Your task to perform on an android device: open app "Roku - Official Remote Control" (install if not already installed) Image 0: 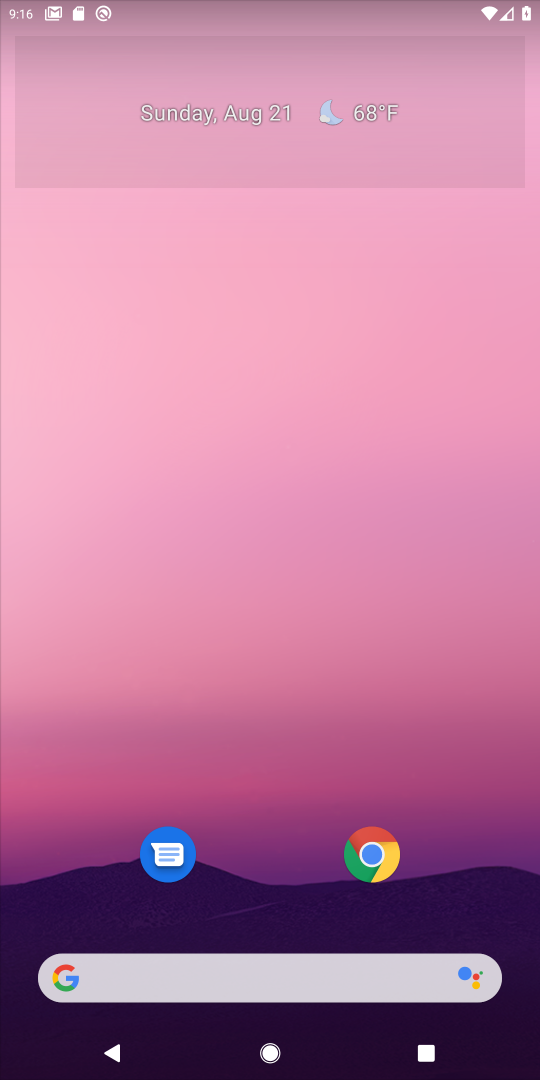
Step 0: drag from (295, 881) to (293, 440)
Your task to perform on an android device: open app "Roku - Official Remote Control" (install if not already installed) Image 1: 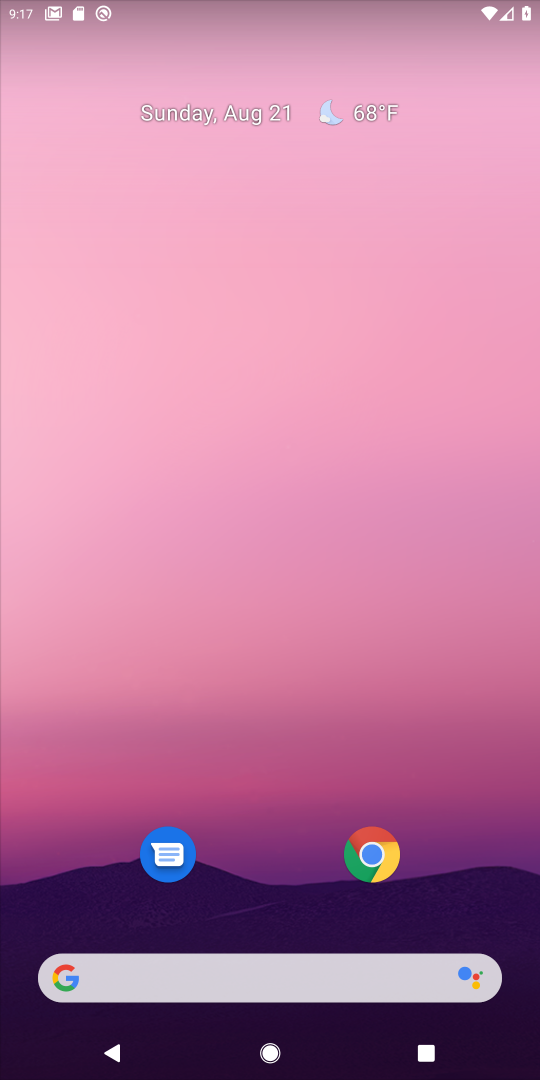
Step 1: drag from (283, 900) to (193, 191)
Your task to perform on an android device: open app "Roku - Official Remote Control" (install if not already installed) Image 2: 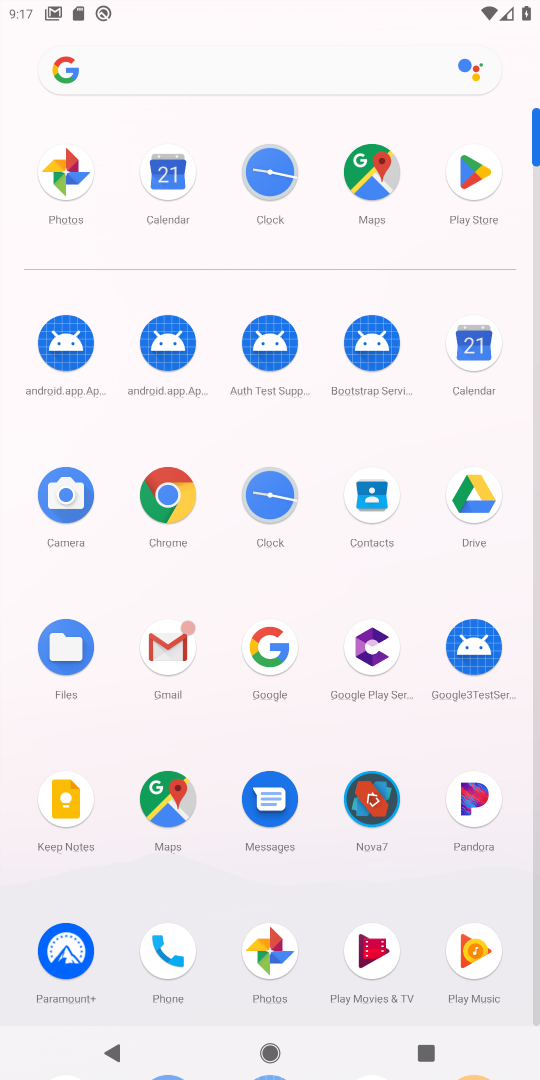
Step 2: click (433, 226)
Your task to perform on an android device: open app "Roku - Official Remote Control" (install if not already installed) Image 3: 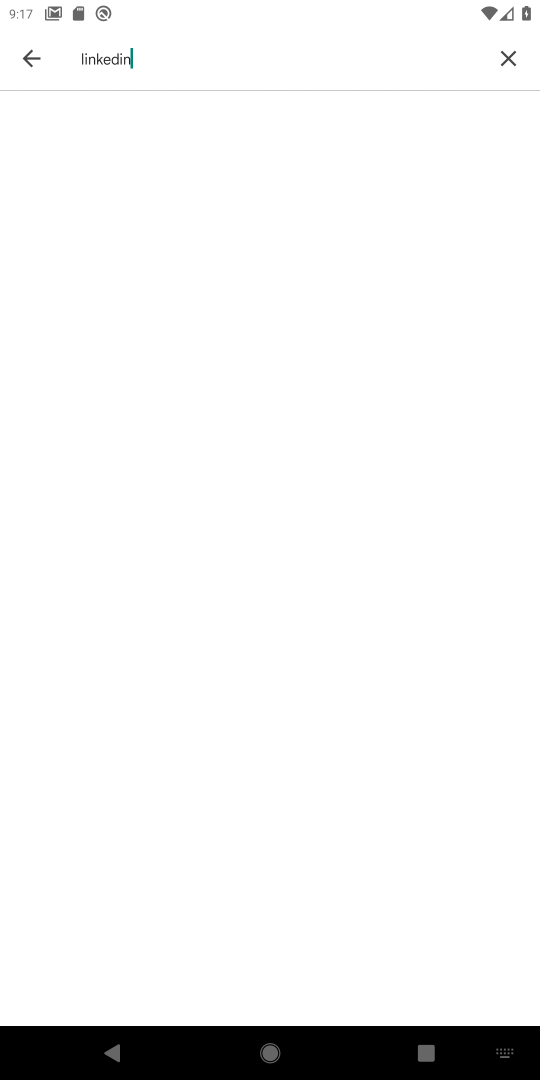
Step 3: click (506, 68)
Your task to perform on an android device: open app "Roku - Official Remote Control" (install if not already installed) Image 4: 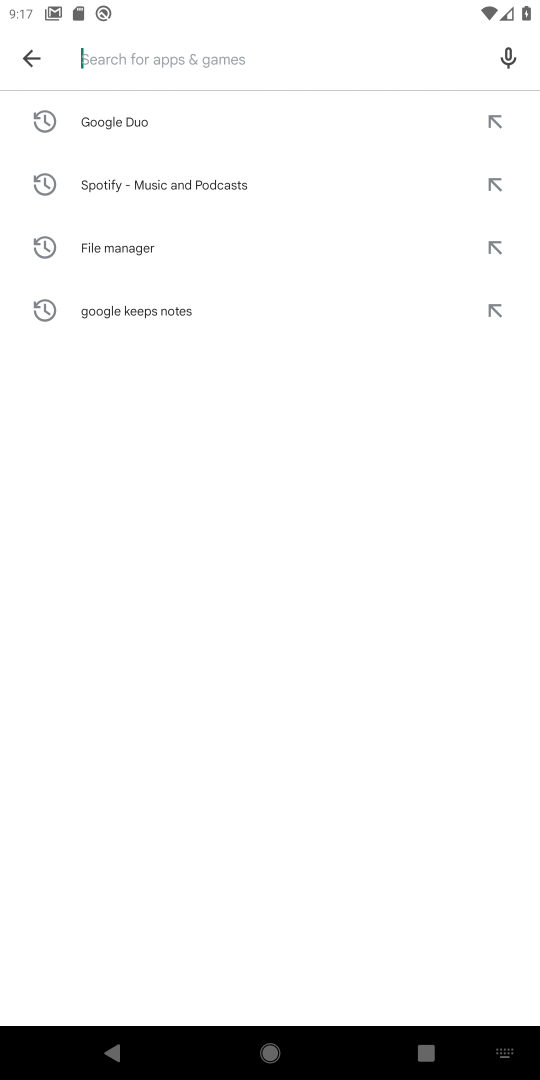
Step 4: type "roku"
Your task to perform on an android device: open app "Roku - Official Remote Control" (install if not already installed) Image 5: 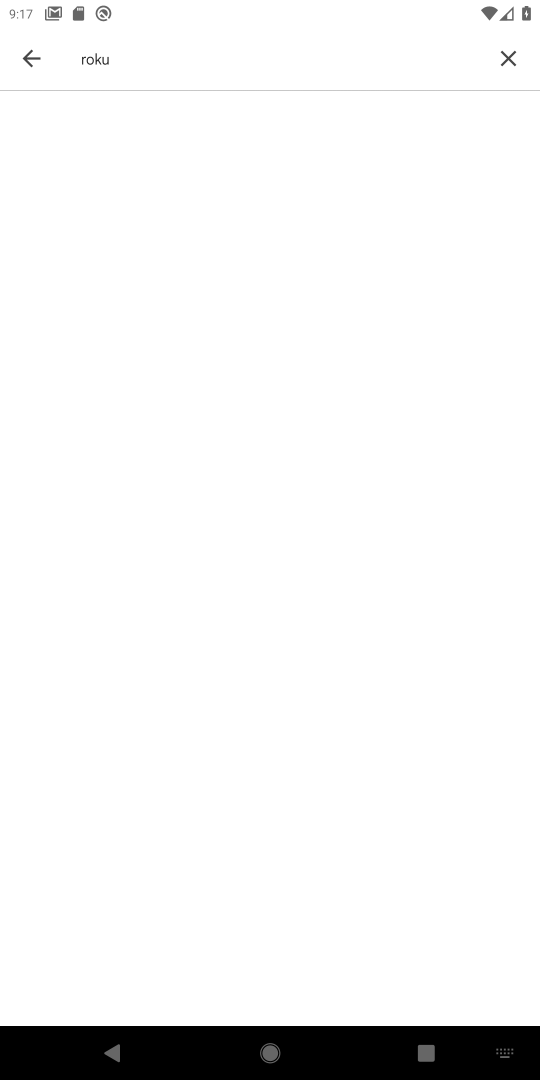
Step 5: task complete